Your task to perform on an android device: Open the stopwatch Image 0: 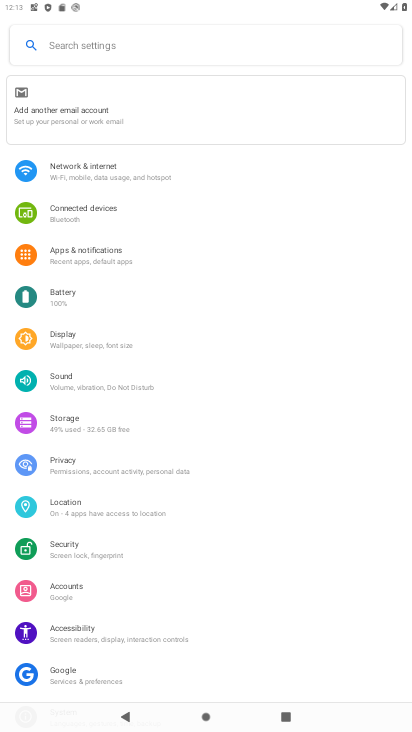
Step 0: press home button
Your task to perform on an android device: Open the stopwatch Image 1: 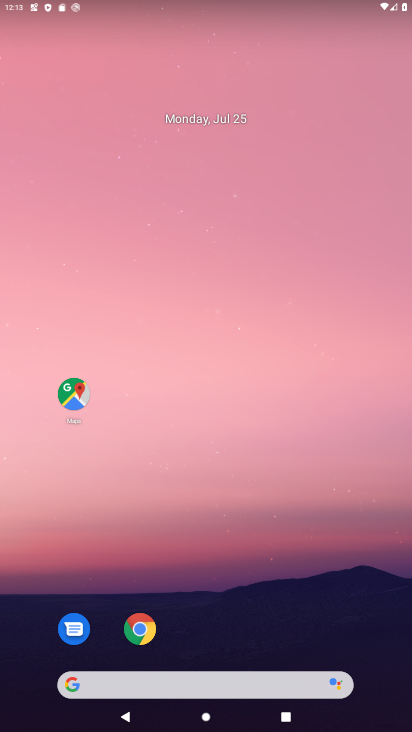
Step 1: drag from (340, 642) to (282, 82)
Your task to perform on an android device: Open the stopwatch Image 2: 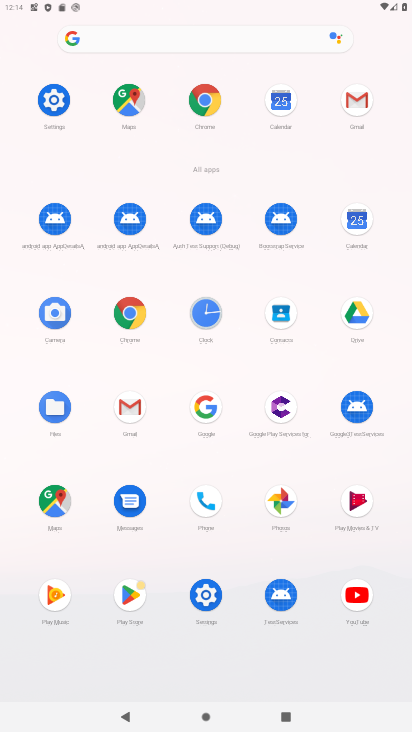
Step 2: click (211, 312)
Your task to perform on an android device: Open the stopwatch Image 3: 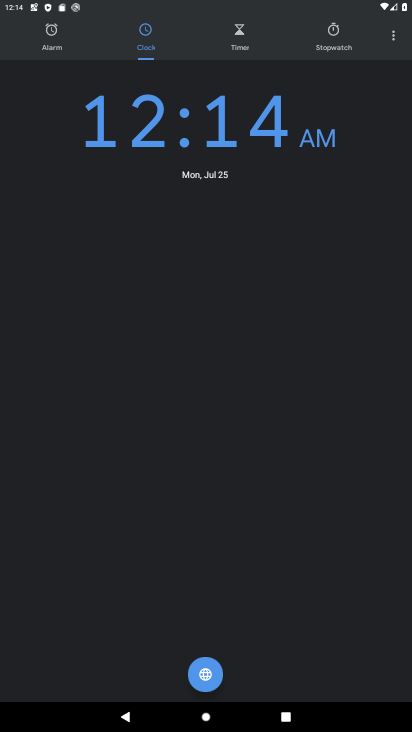
Step 3: click (336, 47)
Your task to perform on an android device: Open the stopwatch Image 4: 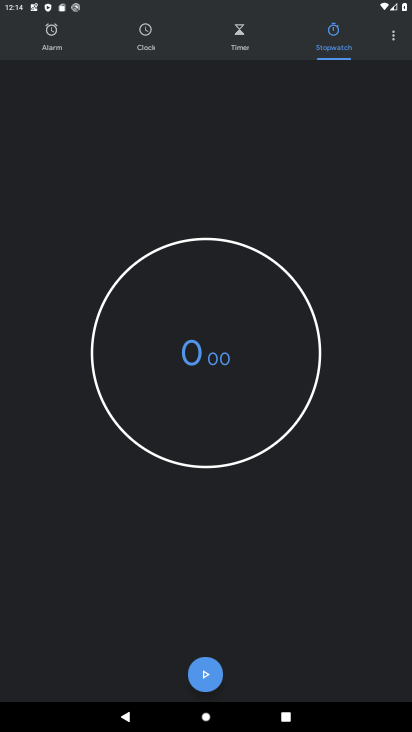
Step 4: task complete